Your task to perform on an android device: Open calendar and show me the third week of next month Image 0: 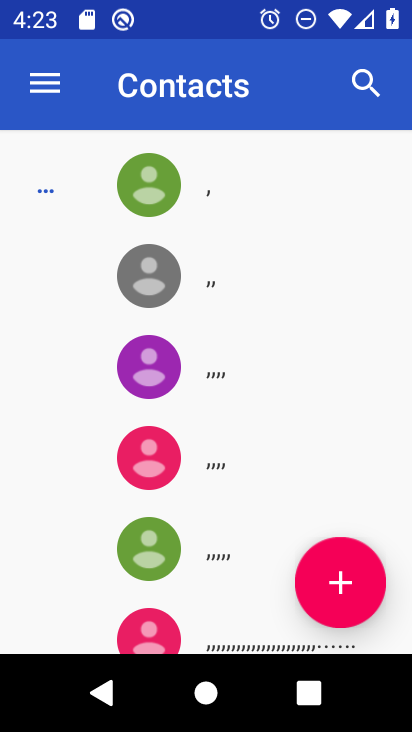
Step 0: press home button
Your task to perform on an android device: Open calendar and show me the third week of next month Image 1: 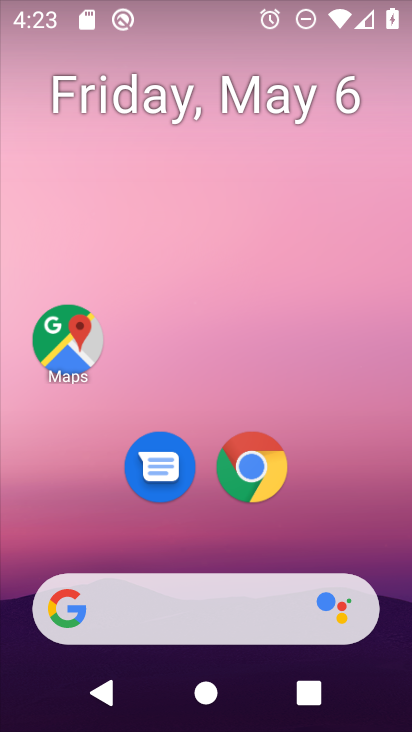
Step 1: click (236, 487)
Your task to perform on an android device: Open calendar and show me the third week of next month Image 2: 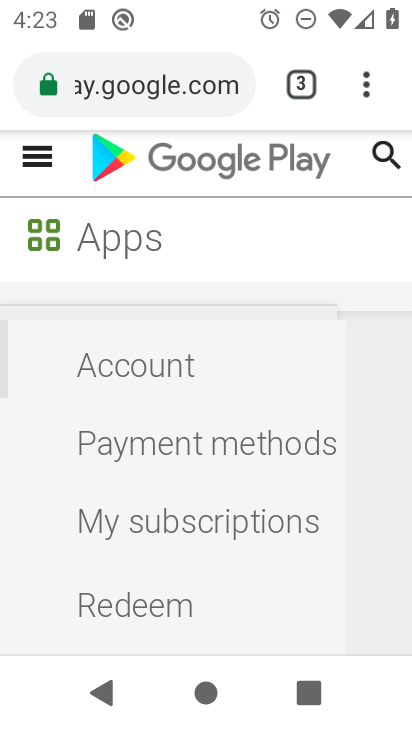
Step 2: click (309, 91)
Your task to perform on an android device: Open calendar and show me the third week of next month Image 3: 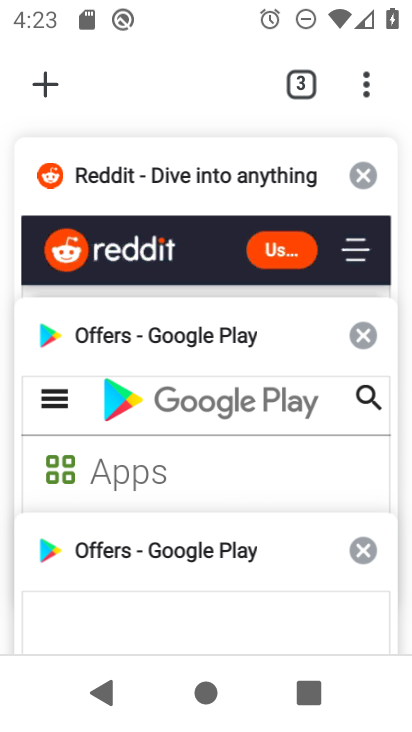
Step 3: click (365, 335)
Your task to perform on an android device: Open calendar and show me the third week of next month Image 4: 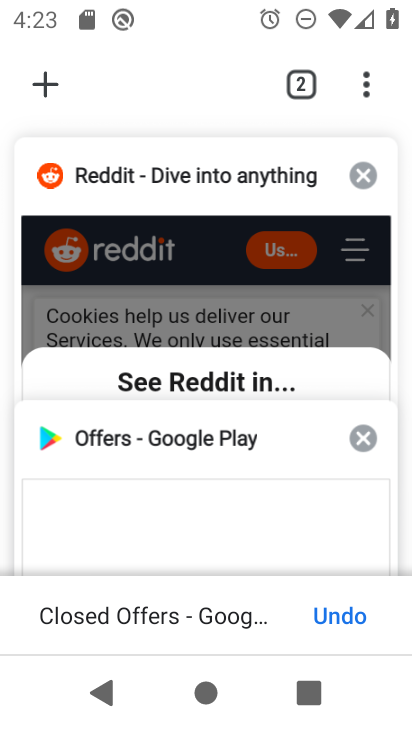
Step 4: click (358, 178)
Your task to perform on an android device: Open calendar and show me the third week of next month Image 5: 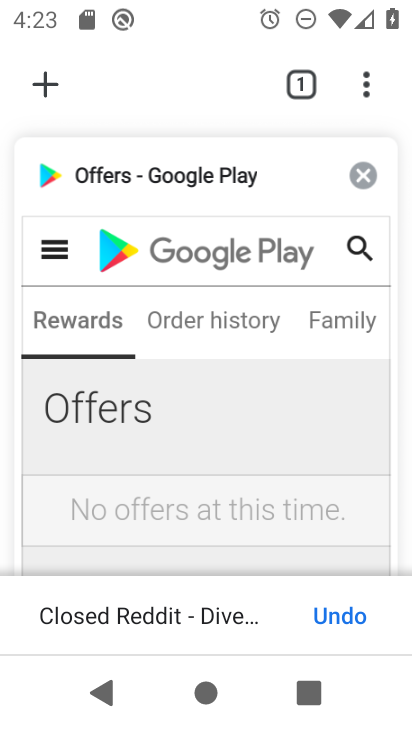
Step 5: click (372, 180)
Your task to perform on an android device: Open calendar and show me the third week of next month Image 6: 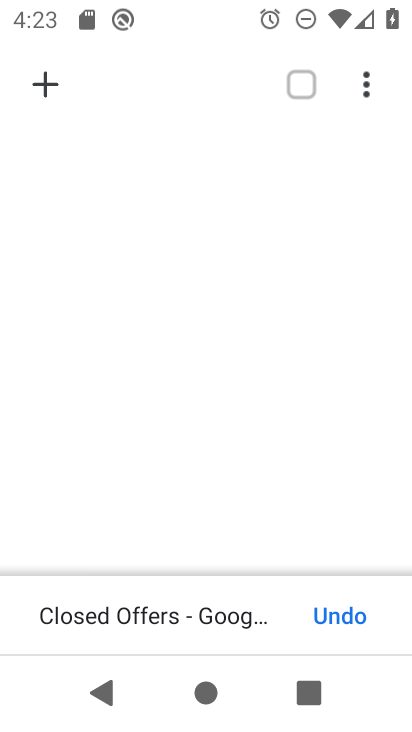
Step 6: click (38, 90)
Your task to perform on an android device: Open calendar and show me the third week of next month Image 7: 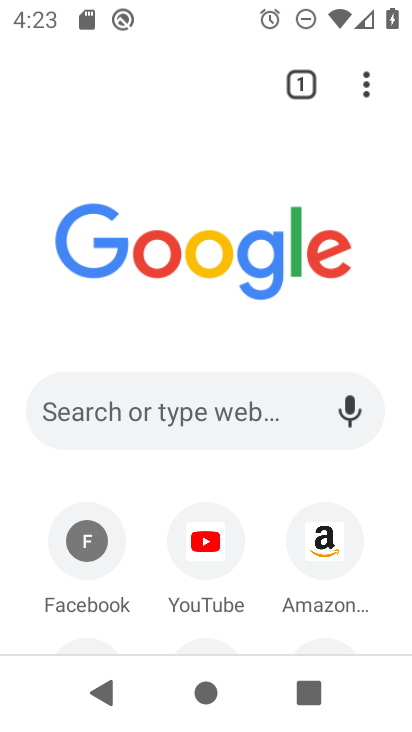
Step 7: drag from (248, 597) to (263, 302)
Your task to perform on an android device: Open calendar and show me the third week of next month Image 8: 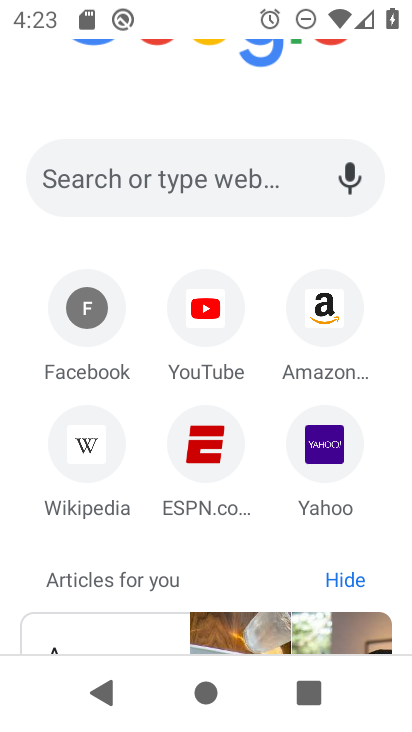
Step 8: click (76, 458)
Your task to perform on an android device: Open calendar and show me the third week of next month Image 9: 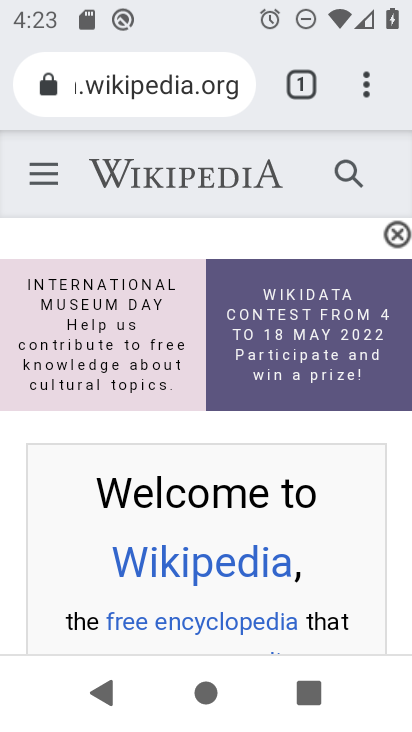
Step 9: task complete